Your task to perform on an android device: toggle wifi Image 0: 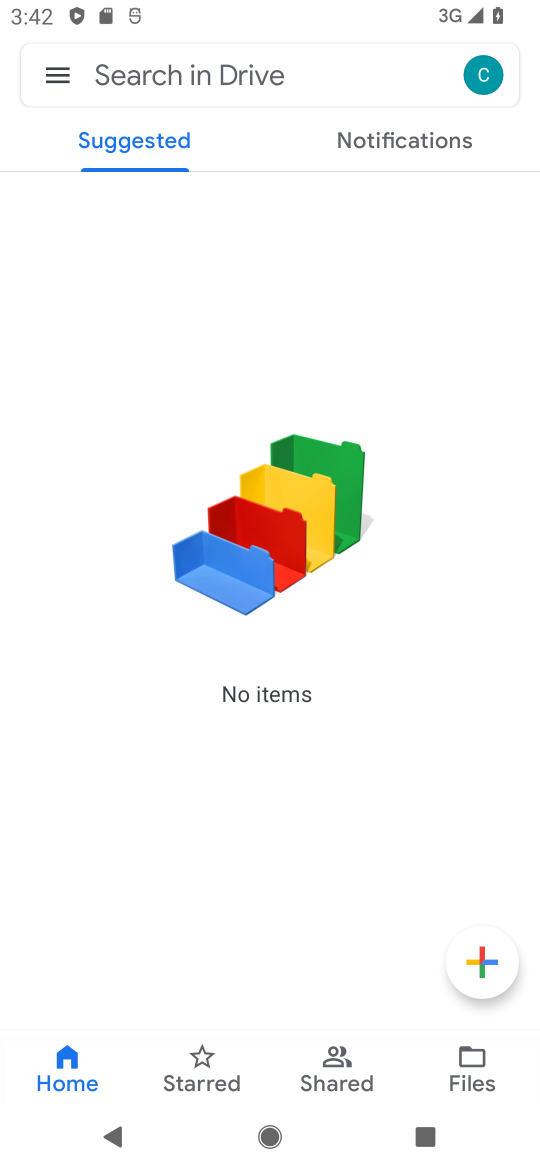
Step 0: press home button
Your task to perform on an android device: toggle wifi Image 1: 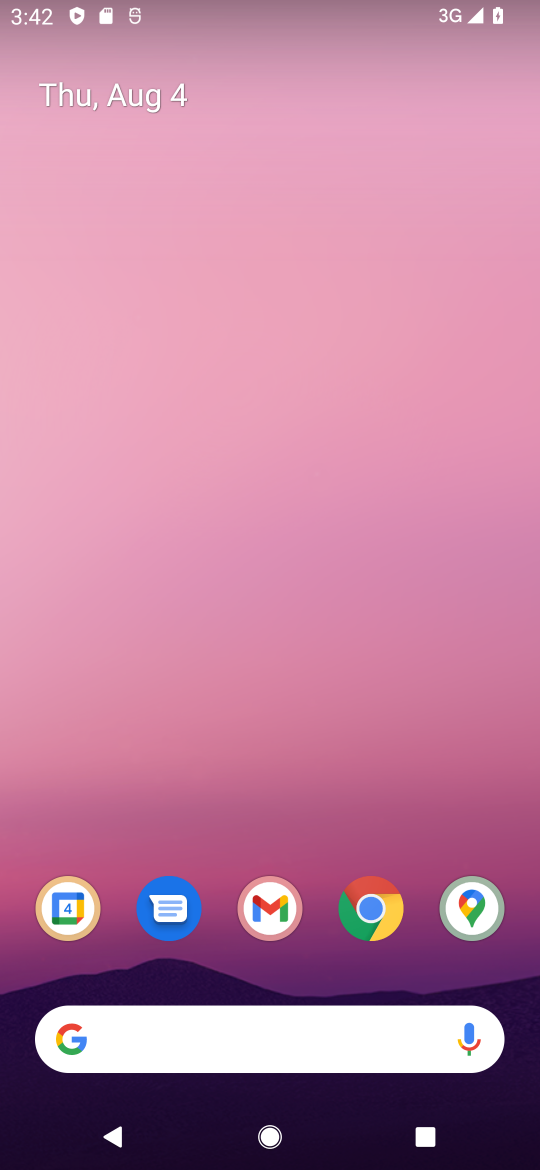
Step 1: drag from (324, 799) to (324, 194)
Your task to perform on an android device: toggle wifi Image 2: 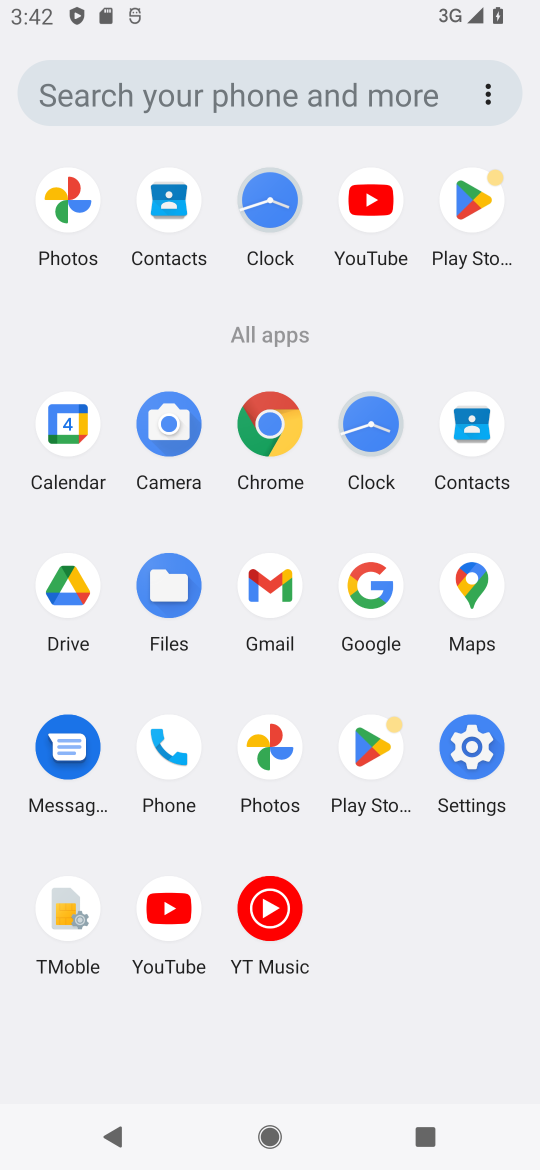
Step 2: click (463, 748)
Your task to perform on an android device: toggle wifi Image 3: 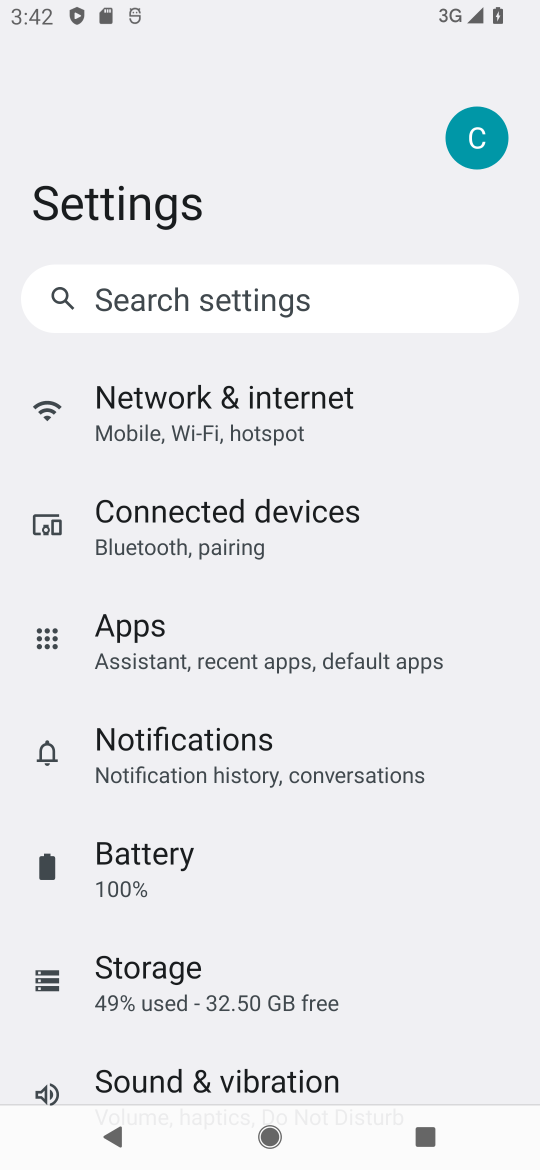
Step 3: click (326, 427)
Your task to perform on an android device: toggle wifi Image 4: 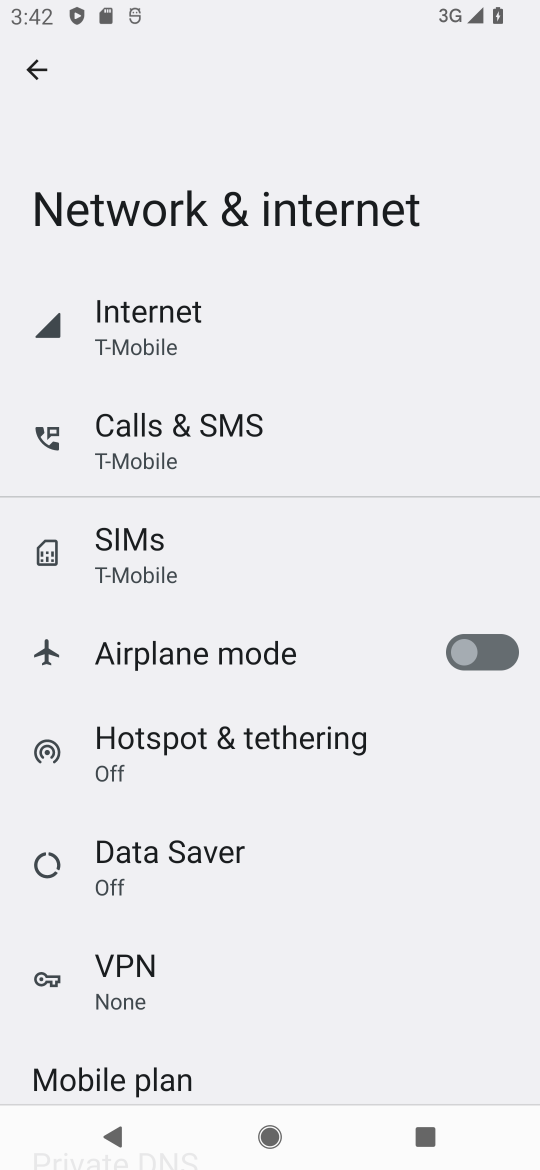
Step 4: click (226, 345)
Your task to perform on an android device: toggle wifi Image 5: 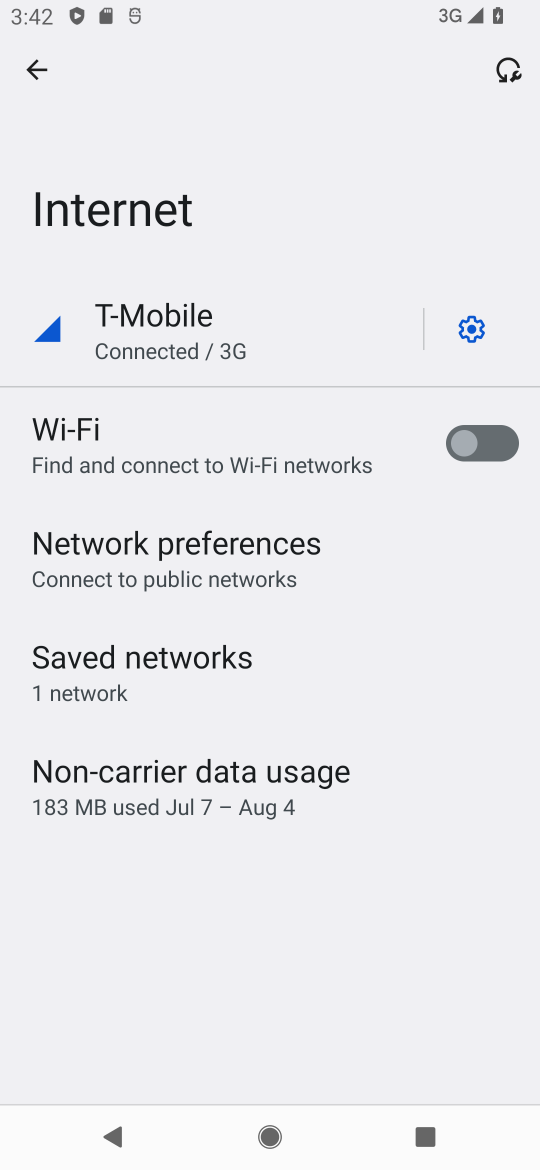
Step 5: click (458, 426)
Your task to perform on an android device: toggle wifi Image 6: 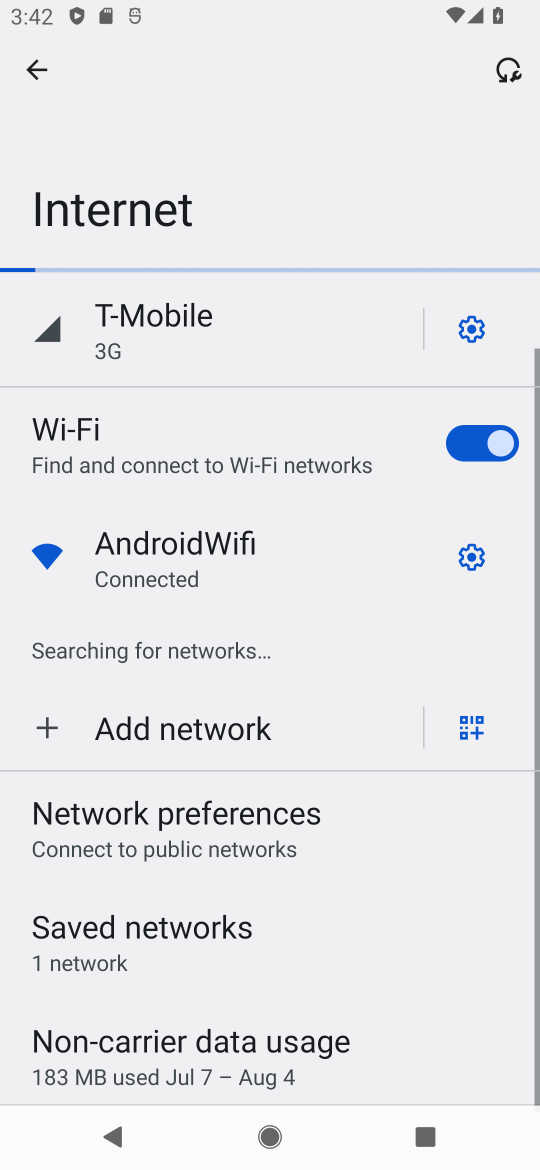
Step 6: task complete